Your task to perform on an android device: turn off javascript in the chrome app Image 0: 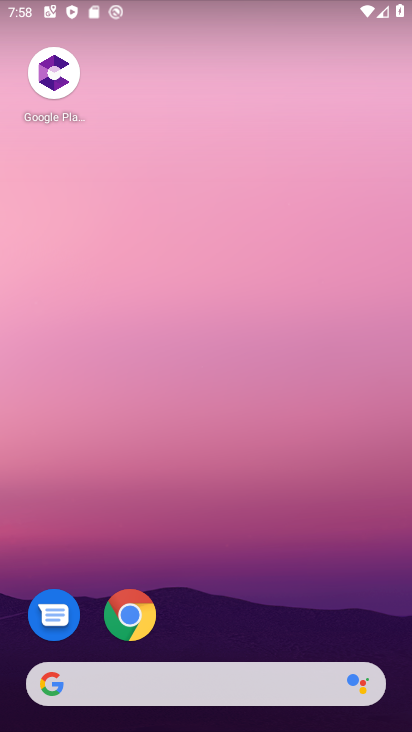
Step 0: drag from (231, 561) to (325, 4)
Your task to perform on an android device: turn off javascript in the chrome app Image 1: 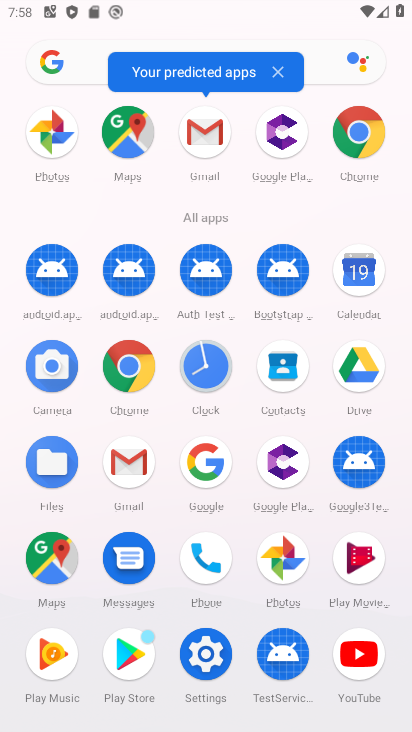
Step 1: click (362, 131)
Your task to perform on an android device: turn off javascript in the chrome app Image 2: 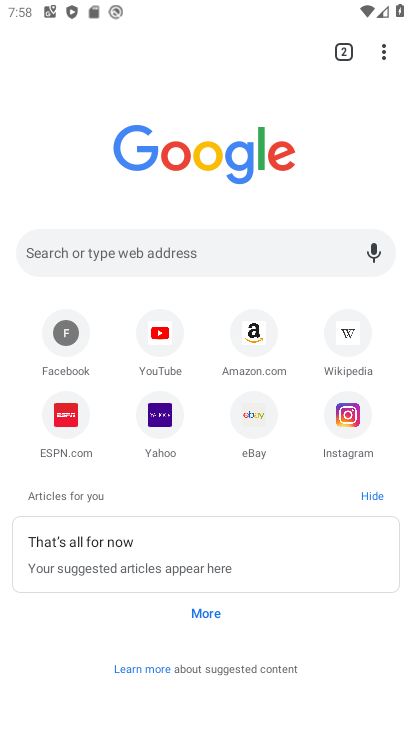
Step 2: click (381, 50)
Your task to perform on an android device: turn off javascript in the chrome app Image 3: 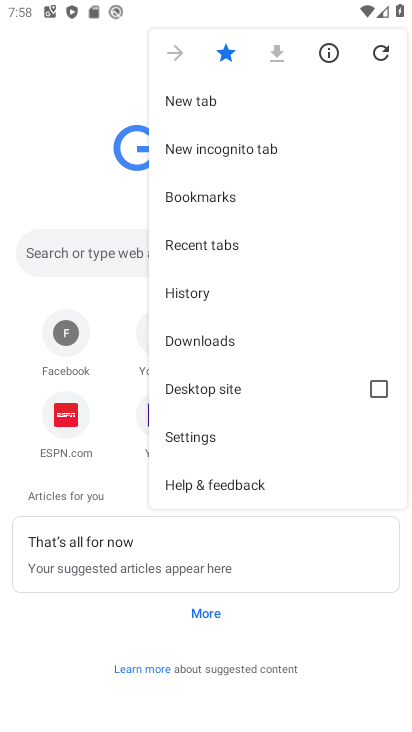
Step 3: click (233, 442)
Your task to perform on an android device: turn off javascript in the chrome app Image 4: 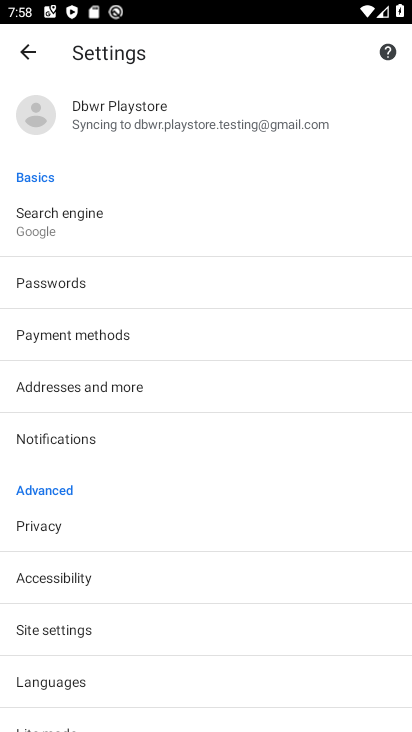
Step 4: click (98, 634)
Your task to perform on an android device: turn off javascript in the chrome app Image 5: 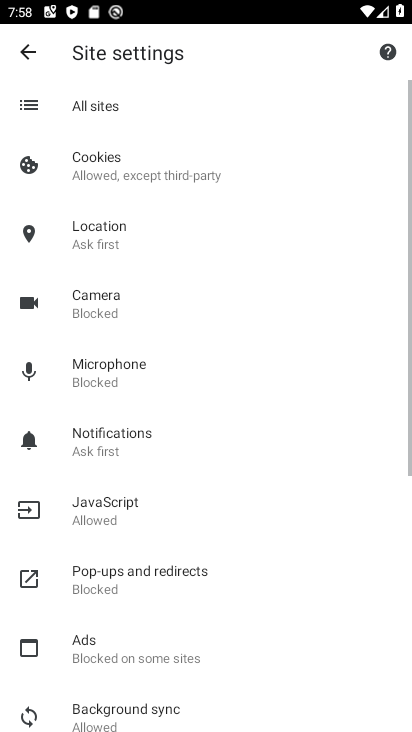
Step 5: click (131, 519)
Your task to perform on an android device: turn off javascript in the chrome app Image 6: 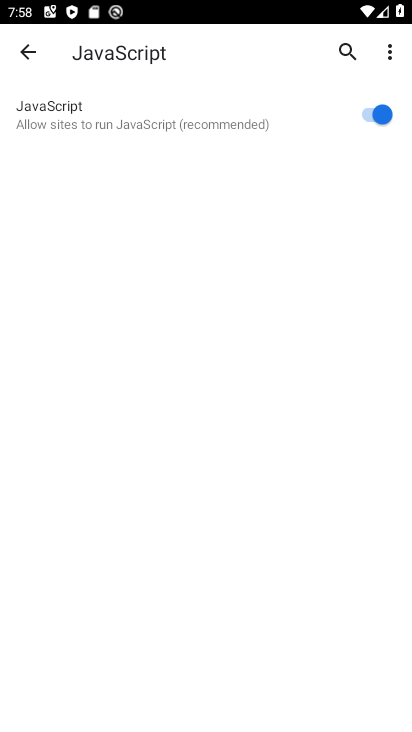
Step 6: click (365, 108)
Your task to perform on an android device: turn off javascript in the chrome app Image 7: 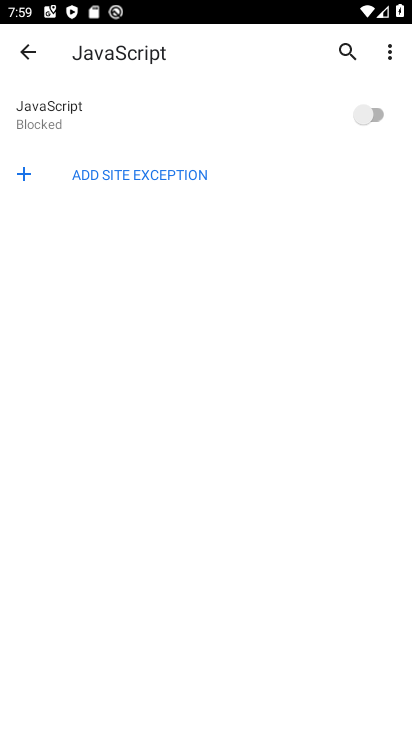
Step 7: task complete